Your task to perform on an android device: Open calendar and show me the second week of next month Image 0: 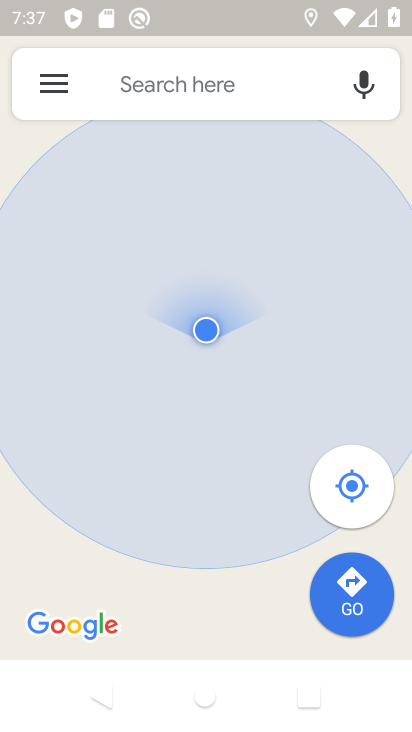
Step 0: press home button
Your task to perform on an android device: Open calendar and show me the second week of next month Image 1: 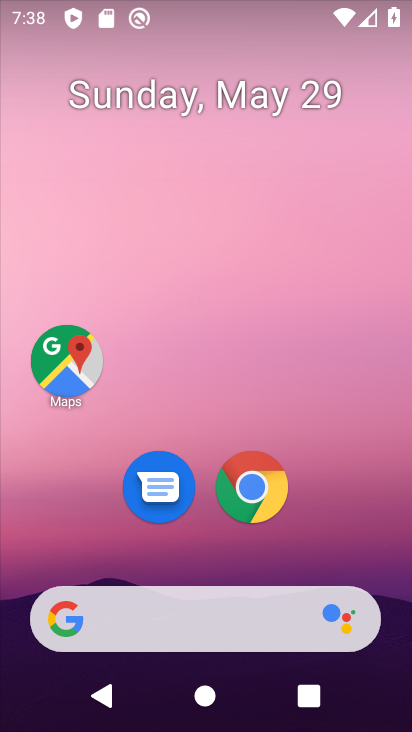
Step 1: drag from (86, 656) to (137, 55)
Your task to perform on an android device: Open calendar and show me the second week of next month Image 2: 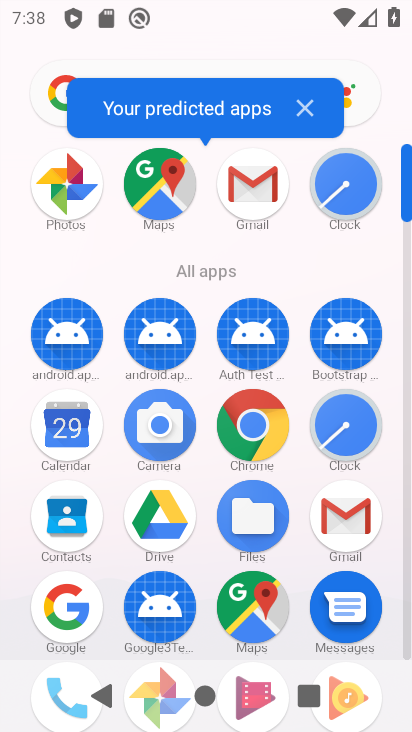
Step 2: click (63, 441)
Your task to perform on an android device: Open calendar and show me the second week of next month Image 3: 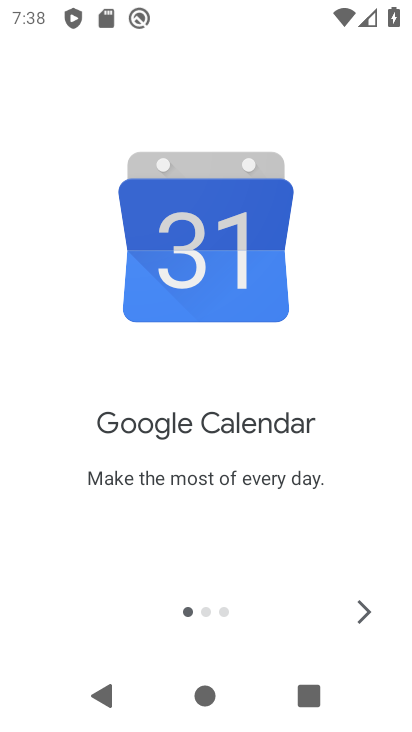
Step 3: click (365, 625)
Your task to perform on an android device: Open calendar and show me the second week of next month Image 4: 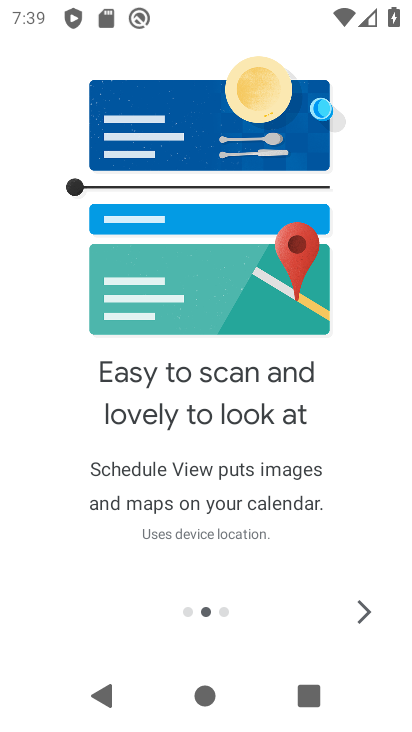
Step 4: click (365, 625)
Your task to perform on an android device: Open calendar and show me the second week of next month Image 5: 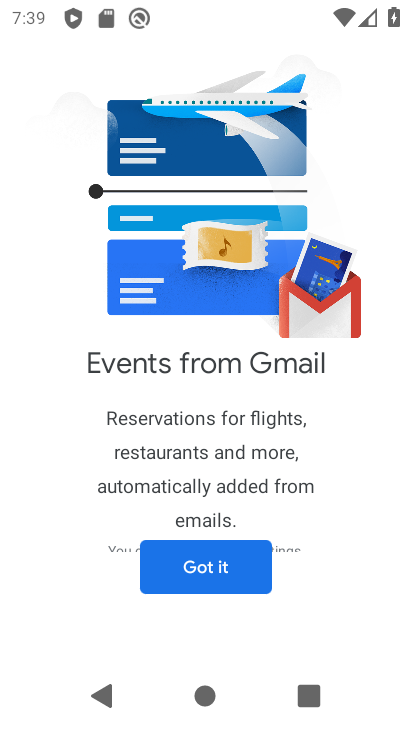
Step 5: click (208, 545)
Your task to perform on an android device: Open calendar and show me the second week of next month Image 6: 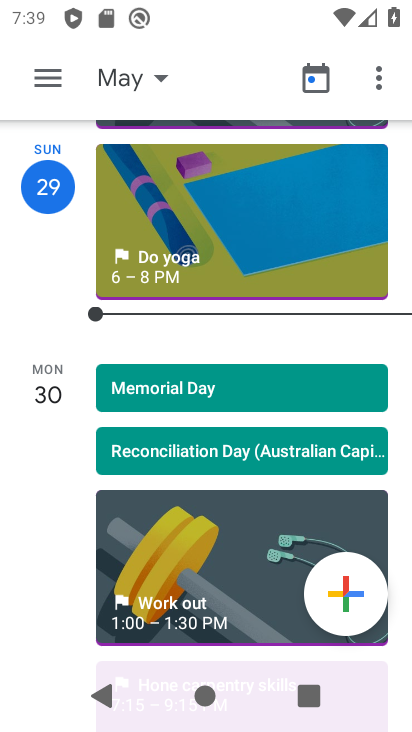
Step 6: drag from (272, 126) to (177, 81)
Your task to perform on an android device: Open calendar and show me the second week of next month Image 7: 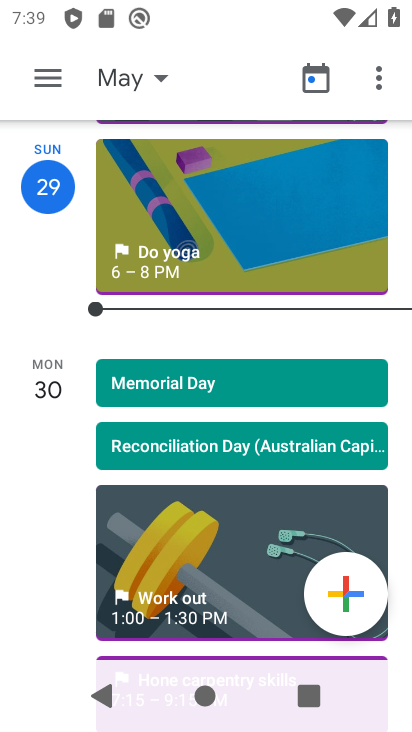
Step 7: click (162, 83)
Your task to perform on an android device: Open calendar and show me the second week of next month Image 8: 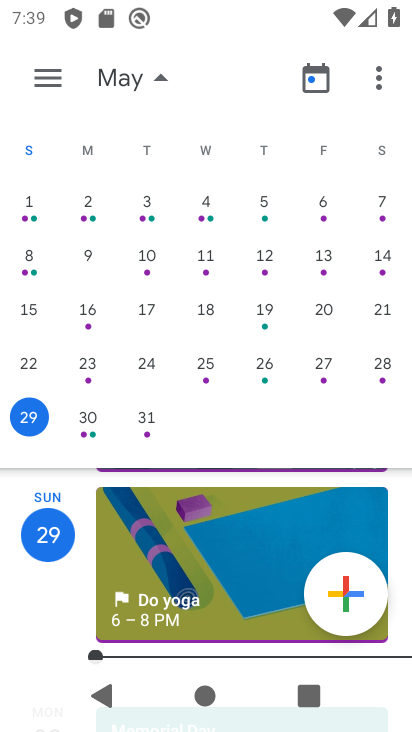
Step 8: drag from (379, 309) to (89, 235)
Your task to perform on an android device: Open calendar and show me the second week of next month Image 9: 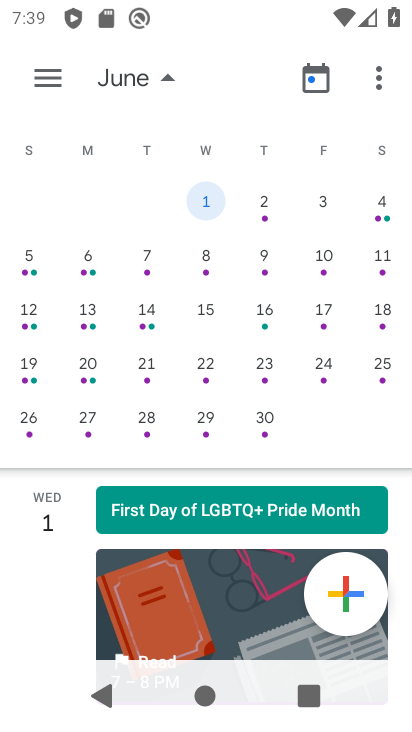
Step 9: click (27, 274)
Your task to perform on an android device: Open calendar and show me the second week of next month Image 10: 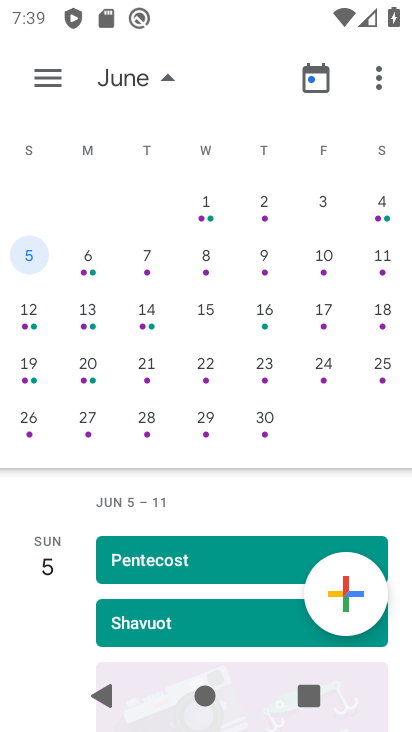
Step 10: task complete